Your task to perform on an android device: Go to Amazon Image 0: 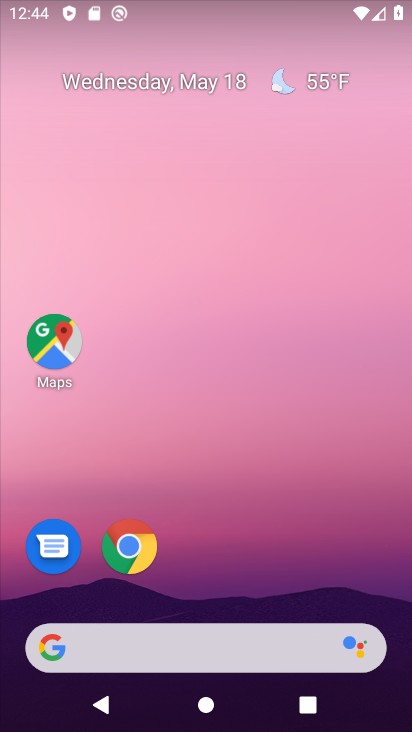
Step 0: drag from (315, 537) to (357, 102)
Your task to perform on an android device: Go to Amazon Image 1: 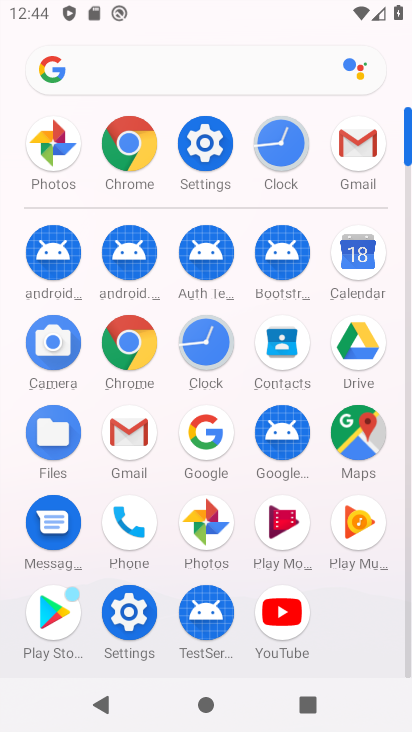
Step 1: click (148, 331)
Your task to perform on an android device: Go to Amazon Image 2: 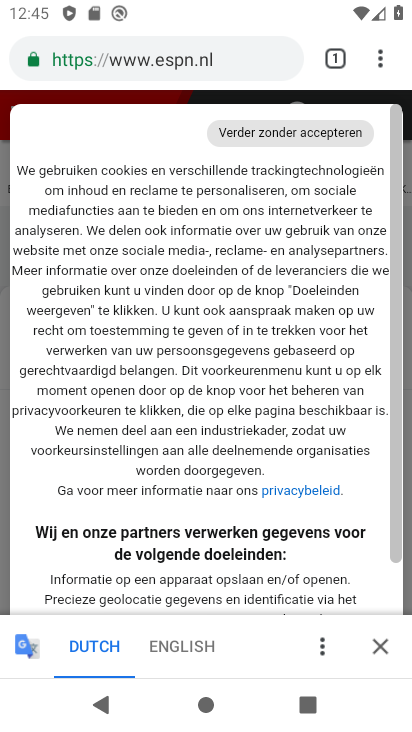
Step 2: drag from (226, 539) to (268, 298)
Your task to perform on an android device: Go to Amazon Image 3: 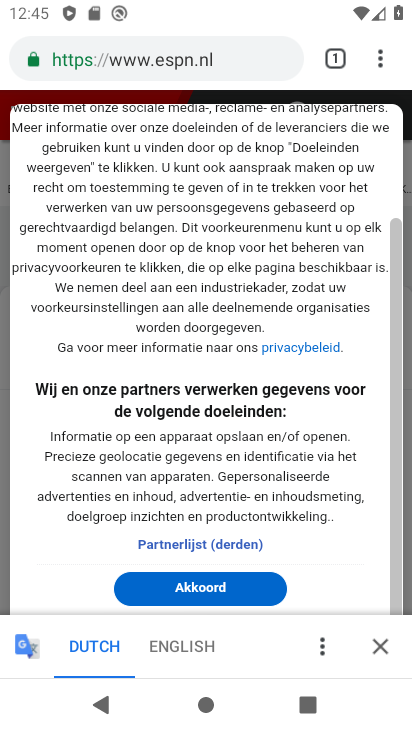
Step 3: click (250, 586)
Your task to perform on an android device: Go to Amazon Image 4: 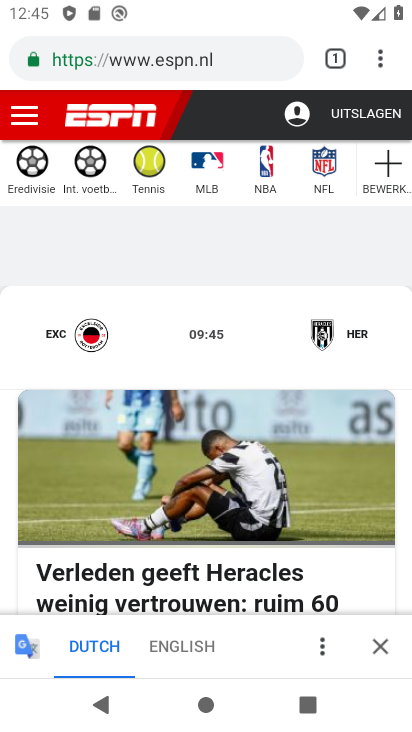
Step 4: click (115, 57)
Your task to perform on an android device: Go to Amazon Image 5: 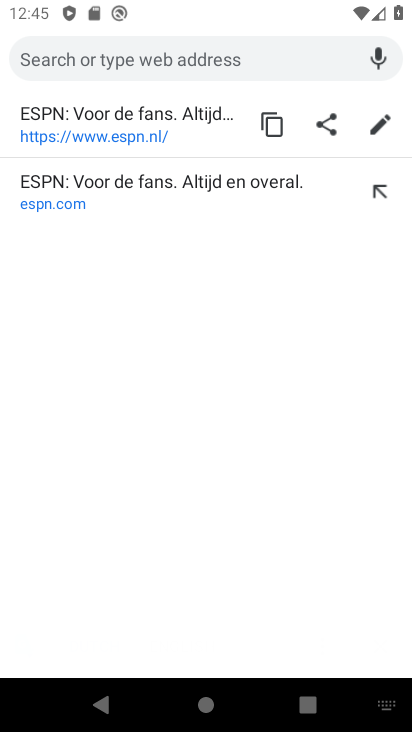
Step 5: type "amazon"
Your task to perform on an android device: Go to Amazon Image 6: 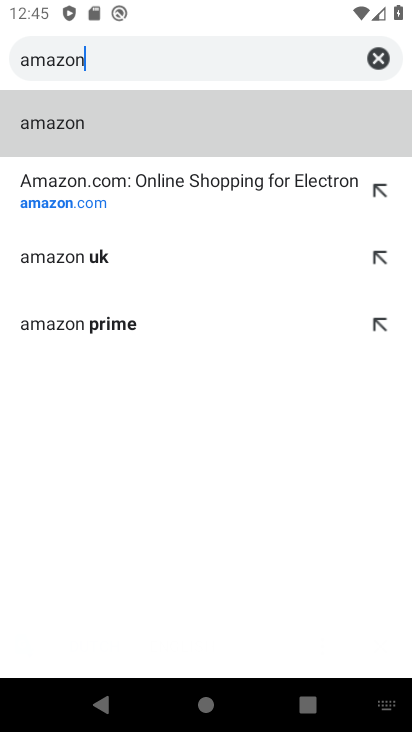
Step 6: click (101, 95)
Your task to perform on an android device: Go to Amazon Image 7: 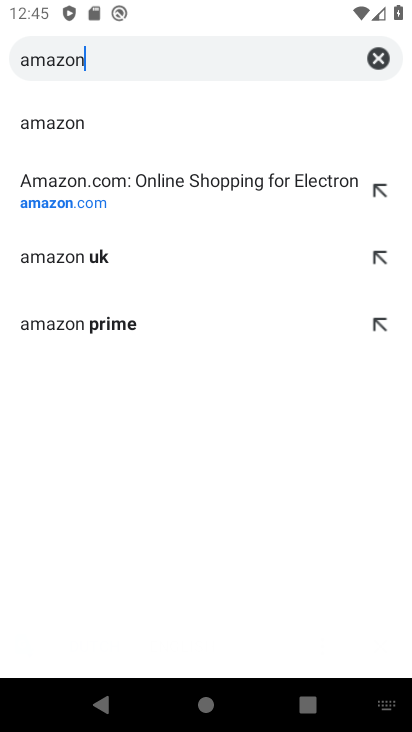
Step 7: click (78, 120)
Your task to perform on an android device: Go to Amazon Image 8: 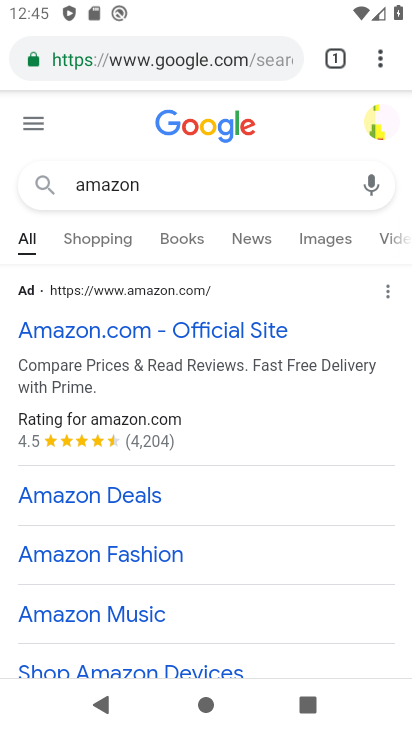
Step 8: click (122, 341)
Your task to perform on an android device: Go to Amazon Image 9: 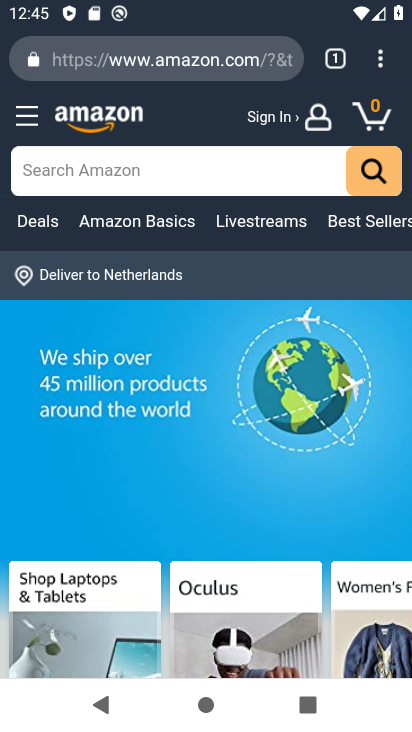
Step 9: task complete